Your task to perform on an android device: Open CNN.com Image 0: 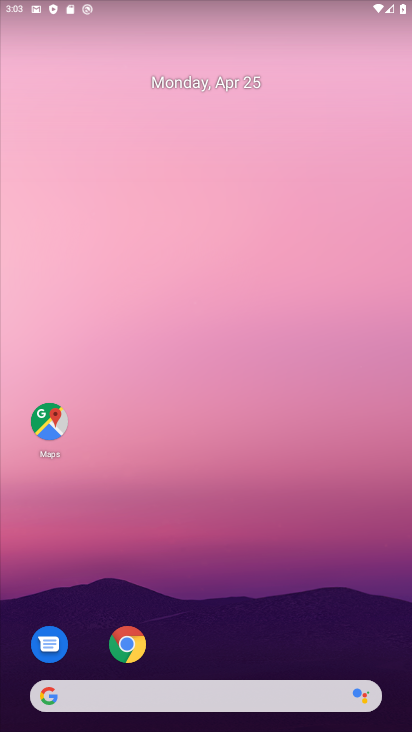
Step 0: click (137, 643)
Your task to perform on an android device: Open CNN.com Image 1: 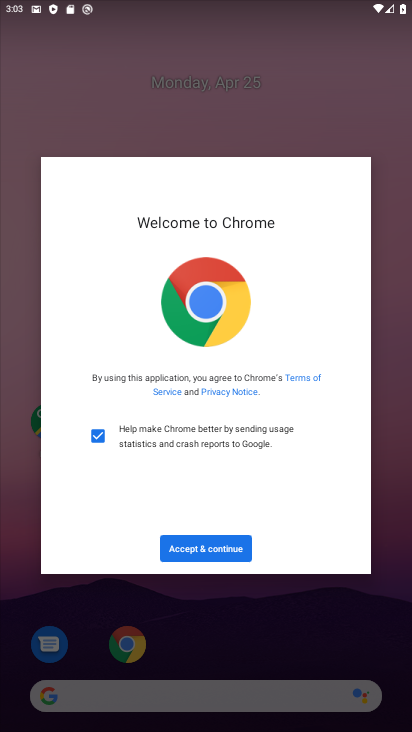
Step 1: click (220, 555)
Your task to perform on an android device: Open CNN.com Image 2: 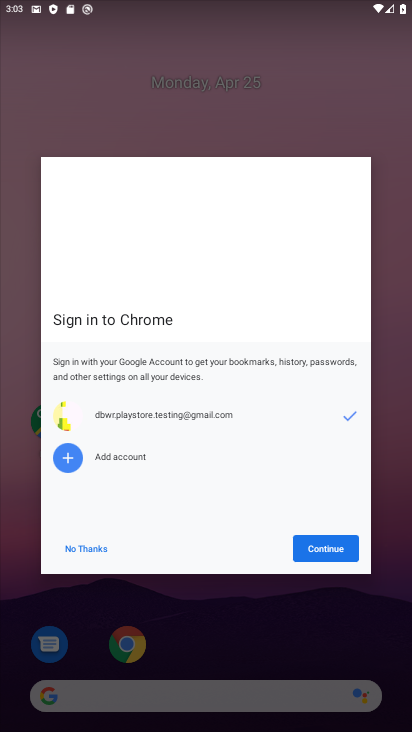
Step 2: click (323, 549)
Your task to perform on an android device: Open CNN.com Image 3: 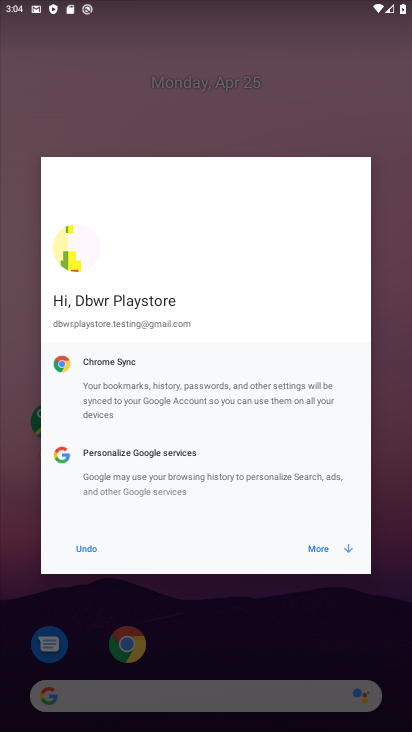
Step 3: click (332, 550)
Your task to perform on an android device: Open CNN.com Image 4: 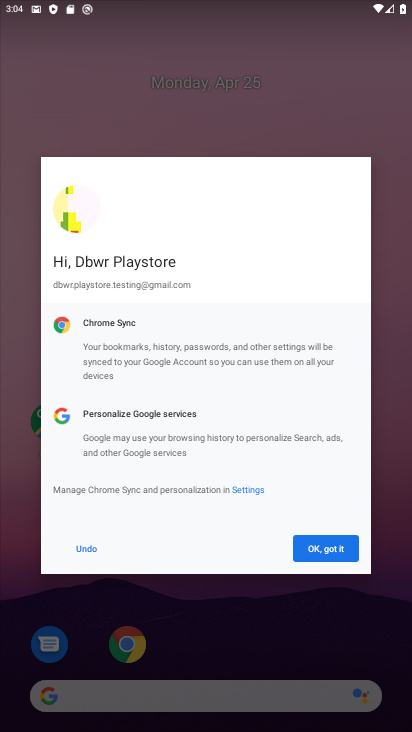
Step 4: click (329, 558)
Your task to perform on an android device: Open CNN.com Image 5: 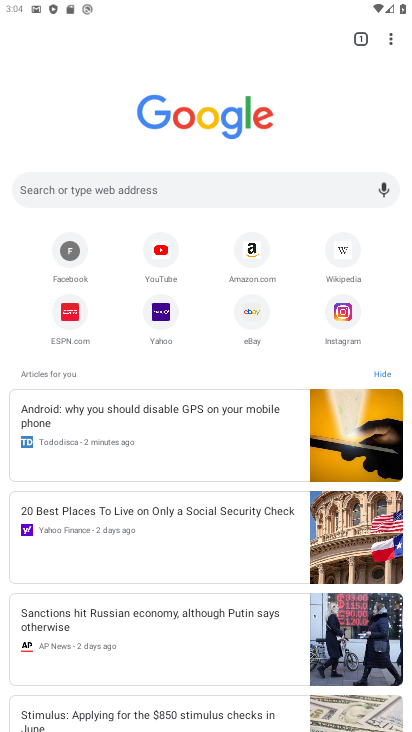
Step 5: click (142, 191)
Your task to perform on an android device: Open CNN.com Image 6: 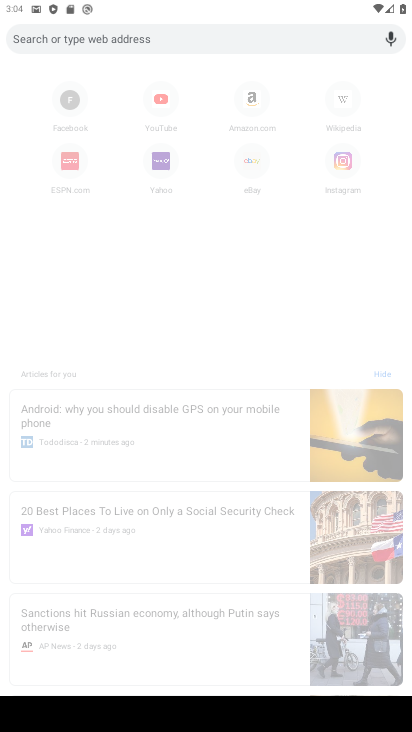
Step 6: type "cnn.com"
Your task to perform on an android device: Open CNN.com Image 7: 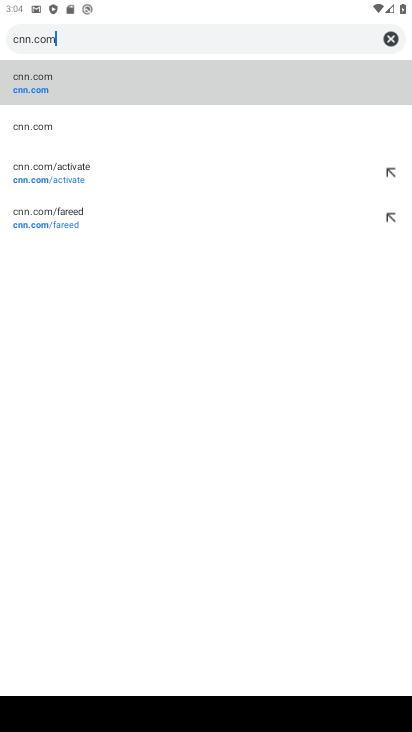
Step 7: click (123, 89)
Your task to perform on an android device: Open CNN.com Image 8: 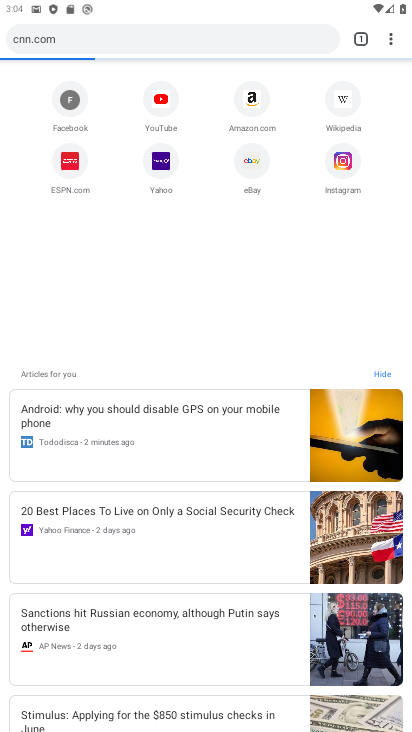
Step 8: task complete